Your task to perform on an android device: Open Maps and search for coffee Image 0: 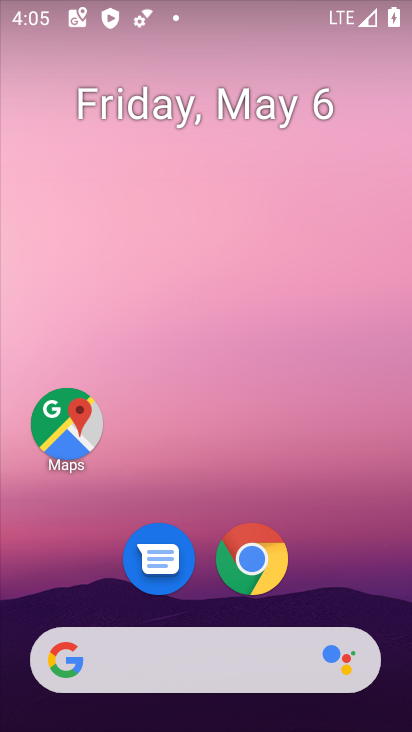
Step 0: click (57, 411)
Your task to perform on an android device: Open Maps and search for coffee Image 1: 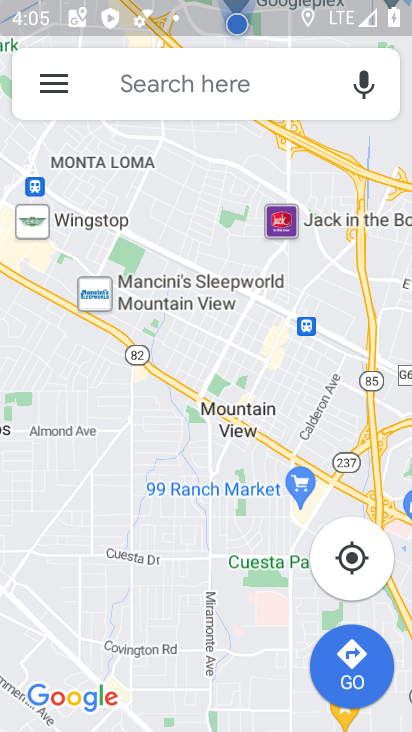
Step 1: click (202, 81)
Your task to perform on an android device: Open Maps and search for coffee Image 2: 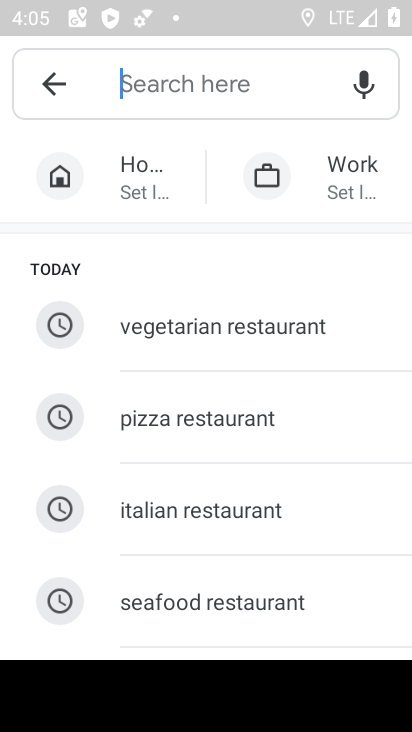
Step 2: type "coffee"
Your task to perform on an android device: Open Maps and search for coffee Image 3: 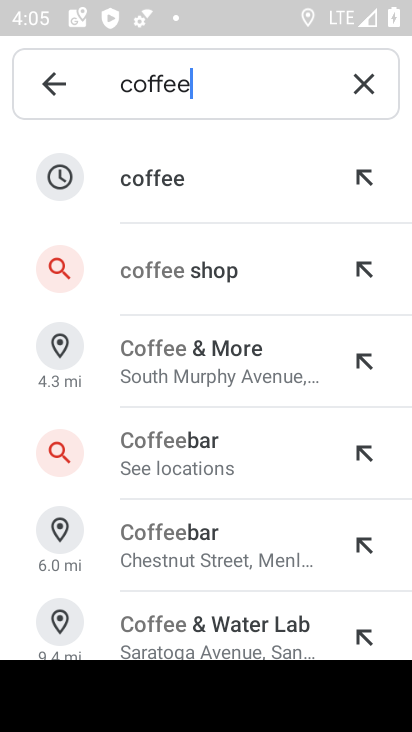
Step 3: click (183, 182)
Your task to perform on an android device: Open Maps and search for coffee Image 4: 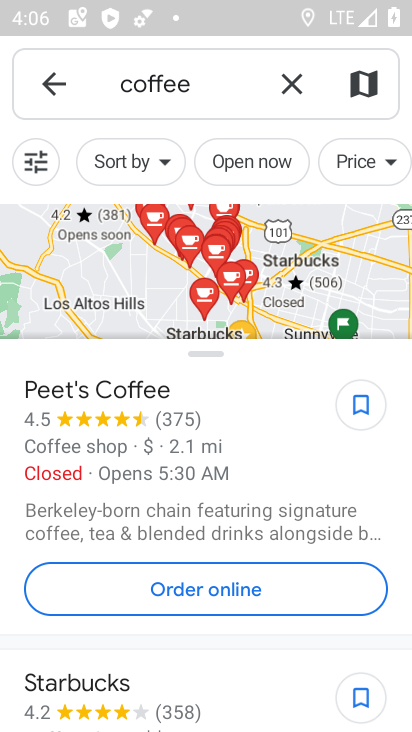
Step 4: task complete